Your task to perform on an android device: Open Reddit.com Image 0: 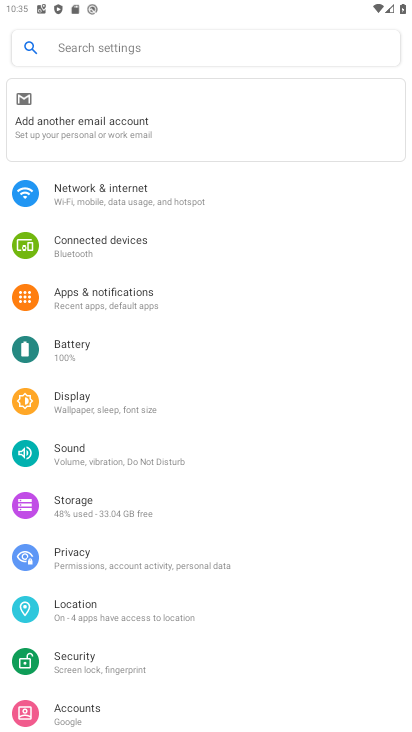
Step 0: press home button
Your task to perform on an android device: Open Reddit.com Image 1: 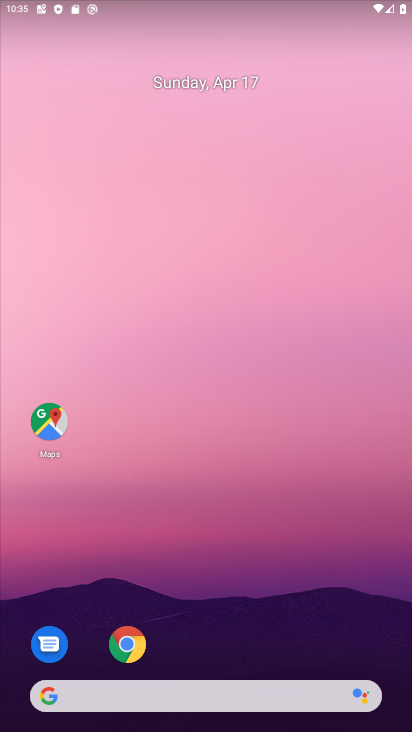
Step 1: click (118, 638)
Your task to perform on an android device: Open Reddit.com Image 2: 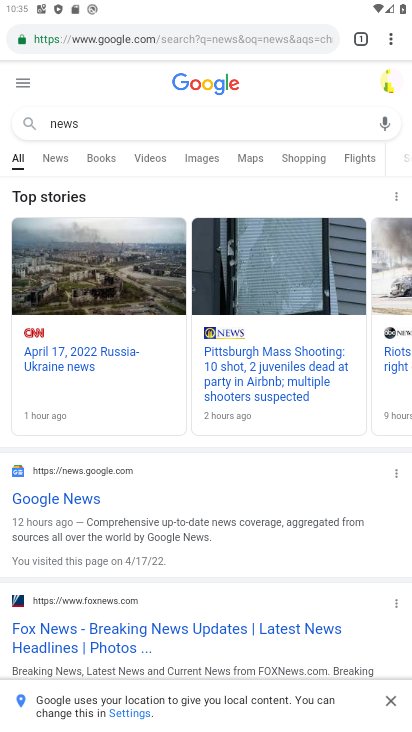
Step 2: click (79, 125)
Your task to perform on an android device: Open Reddit.com Image 3: 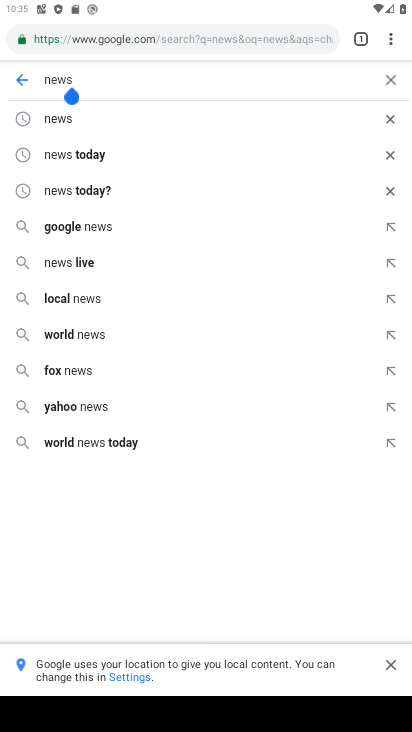
Step 3: click (391, 74)
Your task to perform on an android device: Open Reddit.com Image 4: 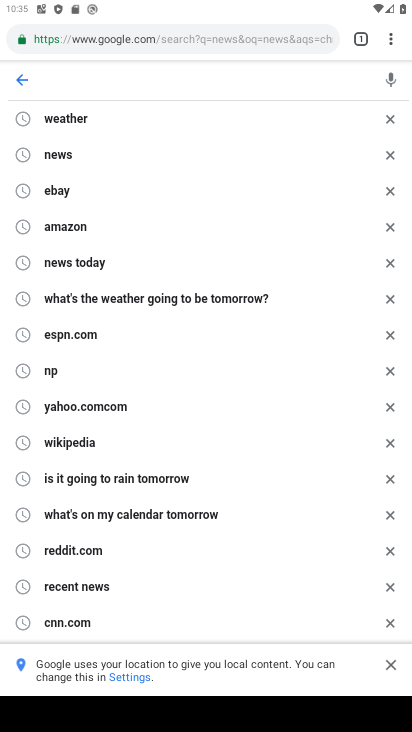
Step 4: type "reddit.com"
Your task to perform on an android device: Open Reddit.com Image 5: 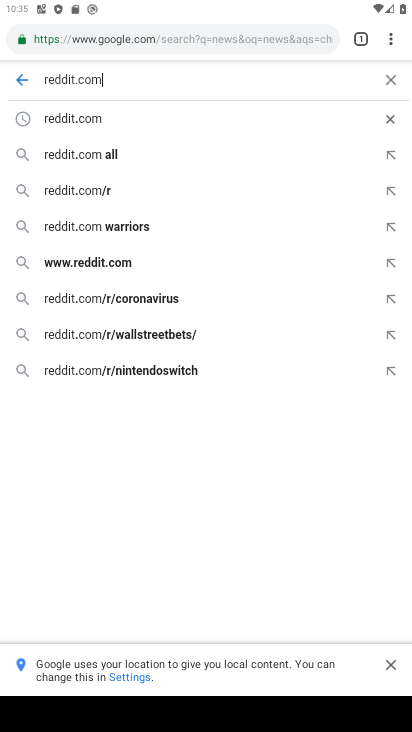
Step 5: click (78, 121)
Your task to perform on an android device: Open Reddit.com Image 6: 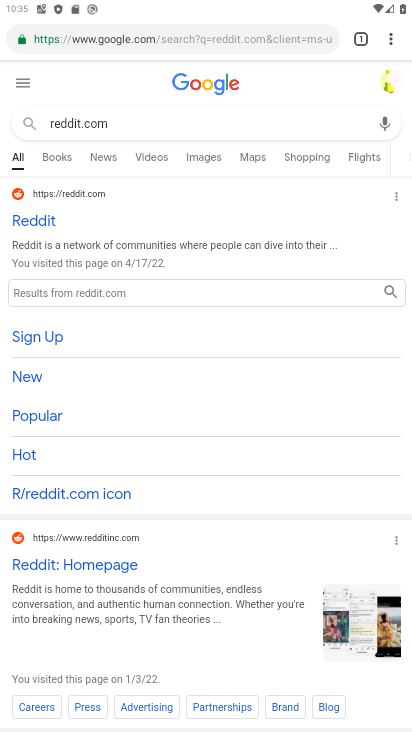
Step 6: task complete